Your task to perform on an android device: toggle show notifications on the lock screen Image 0: 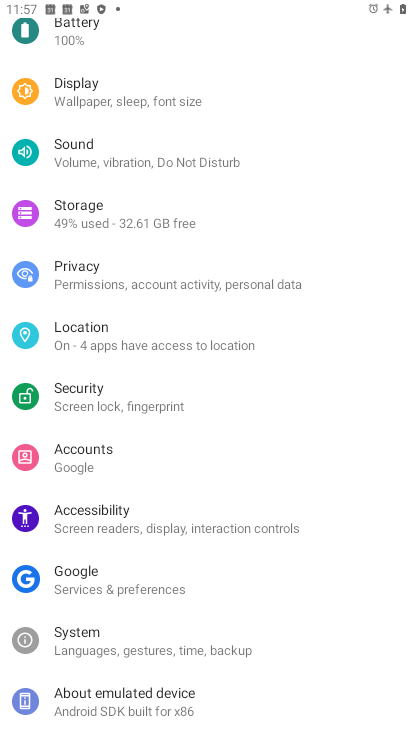
Step 0: press home button
Your task to perform on an android device: toggle show notifications on the lock screen Image 1: 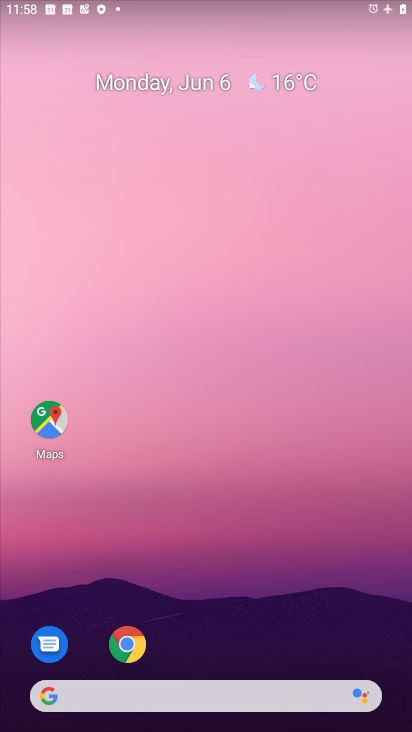
Step 1: drag from (0, 0) to (382, 3)
Your task to perform on an android device: toggle show notifications on the lock screen Image 2: 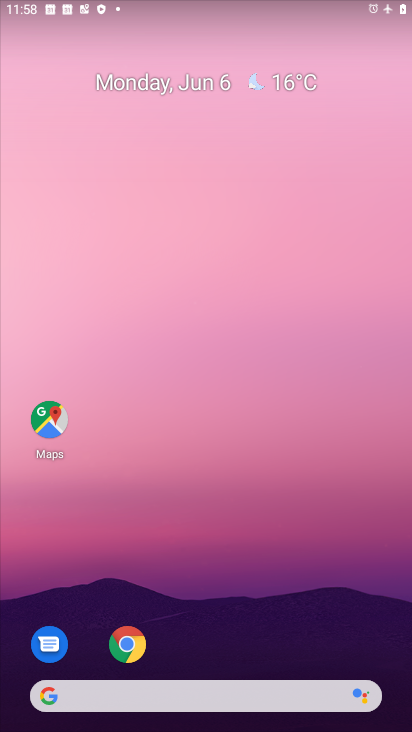
Step 2: drag from (67, 561) to (325, 211)
Your task to perform on an android device: toggle show notifications on the lock screen Image 3: 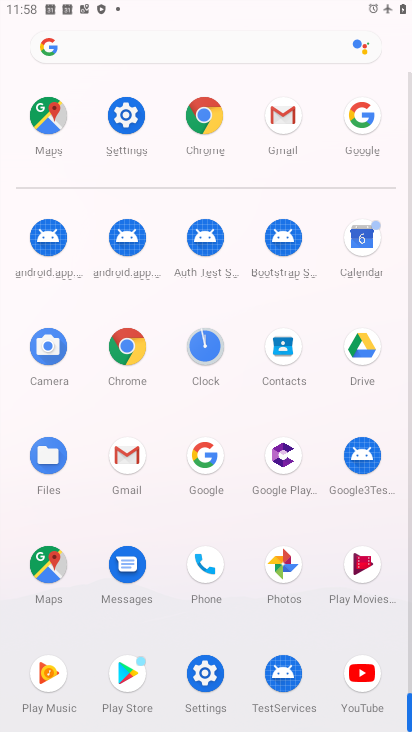
Step 3: click (141, 127)
Your task to perform on an android device: toggle show notifications on the lock screen Image 4: 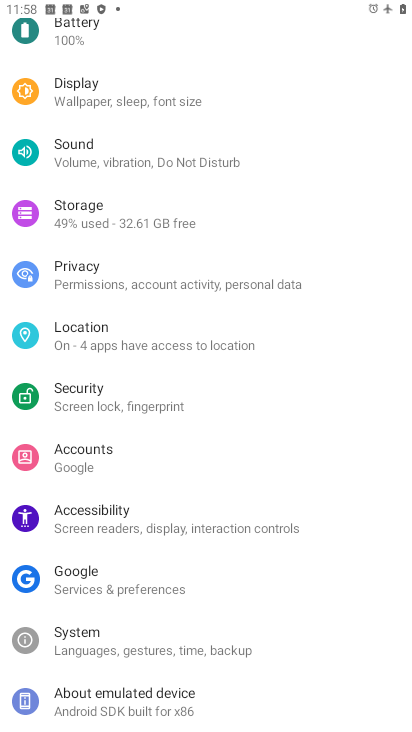
Step 4: drag from (164, 134) to (185, 555)
Your task to perform on an android device: toggle show notifications on the lock screen Image 5: 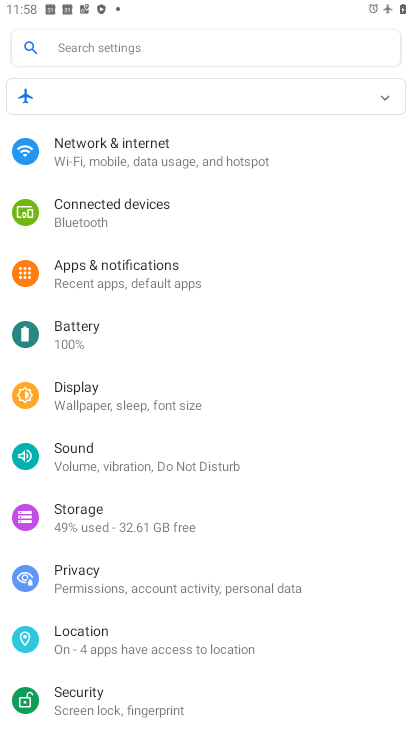
Step 5: click (155, 289)
Your task to perform on an android device: toggle show notifications on the lock screen Image 6: 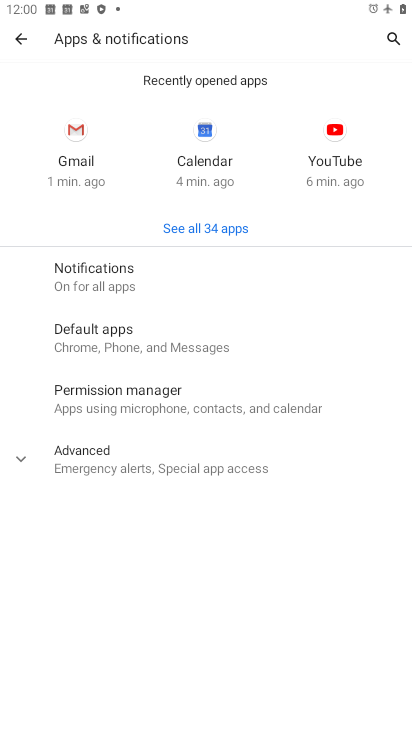
Step 6: click (125, 275)
Your task to perform on an android device: toggle show notifications on the lock screen Image 7: 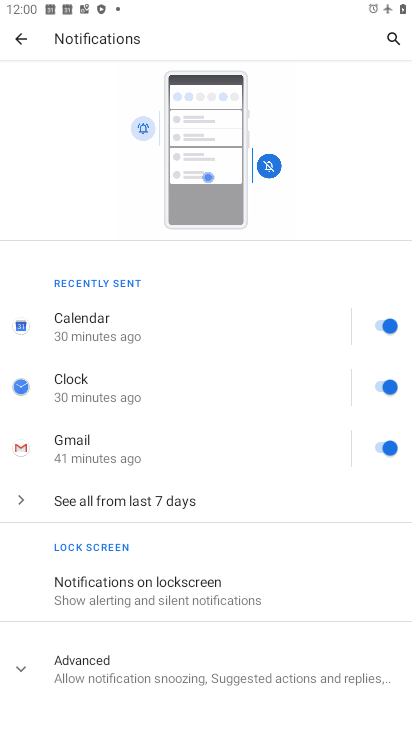
Step 7: click (132, 581)
Your task to perform on an android device: toggle show notifications on the lock screen Image 8: 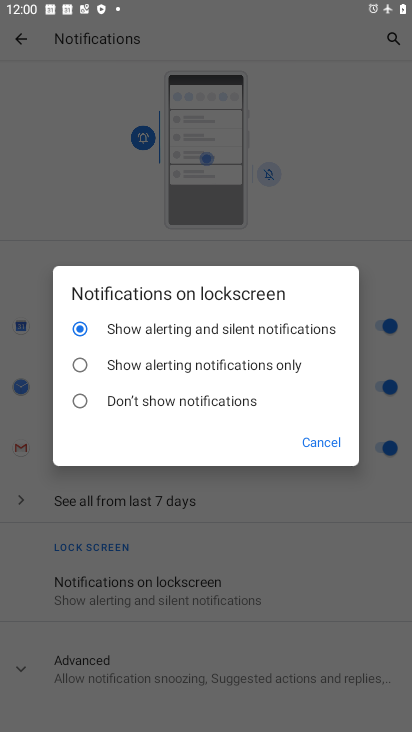
Step 8: click (136, 405)
Your task to perform on an android device: toggle show notifications on the lock screen Image 9: 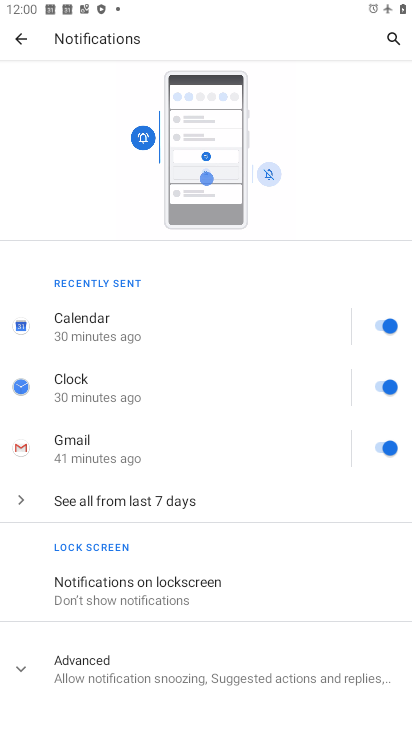
Step 9: task complete